Your task to perform on an android device: Open maps Image 0: 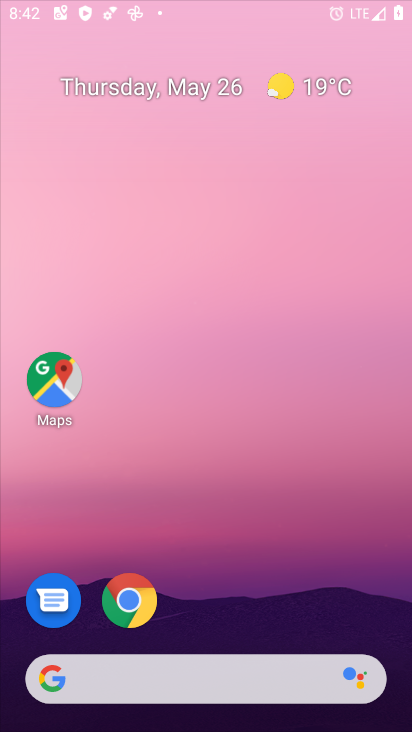
Step 0: press home button
Your task to perform on an android device: Open maps Image 1: 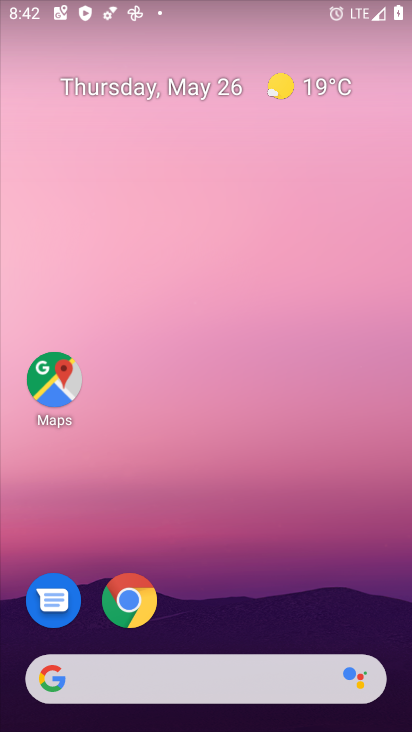
Step 1: click (59, 379)
Your task to perform on an android device: Open maps Image 2: 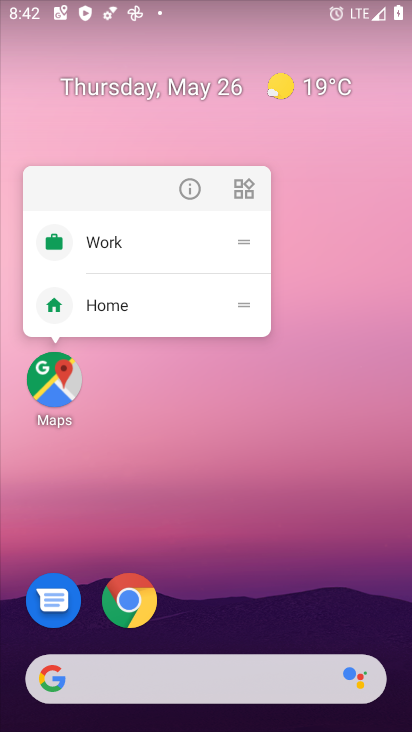
Step 2: click (252, 625)
Your task to perform on an android device: Open maps Image 3: 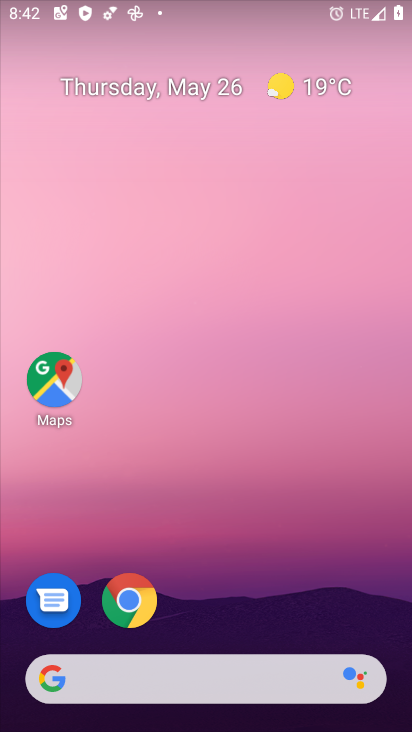
Step 3: drag from (275, 636) to (287, 192)
Your task to perform on an android device: Open maps Image 4: 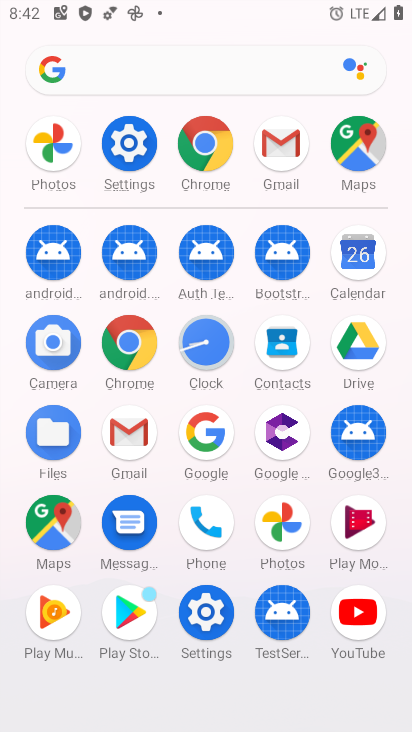
Step 4: click (362, 154)
Your task to perform on an android device: Open maps Image 5: 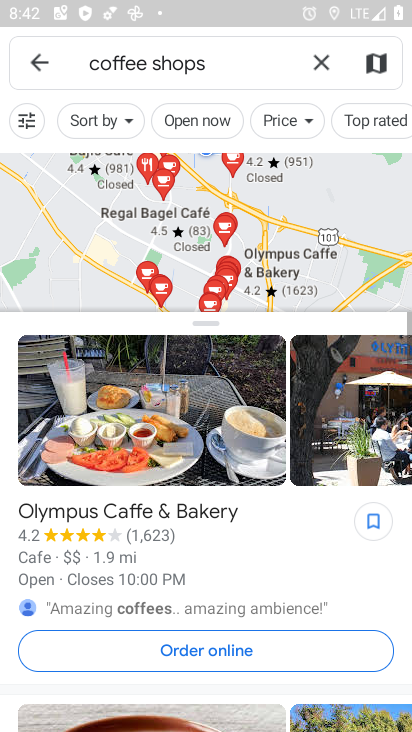
Step 5: click (324, 62)
Your task to perform on an android device: Open maps Image 6: 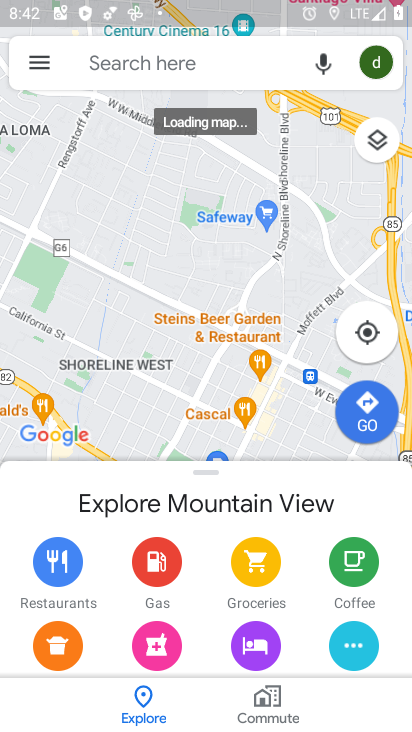
Step 6: task complete